Your task to perform on an android device: change notifications settings Image 0: 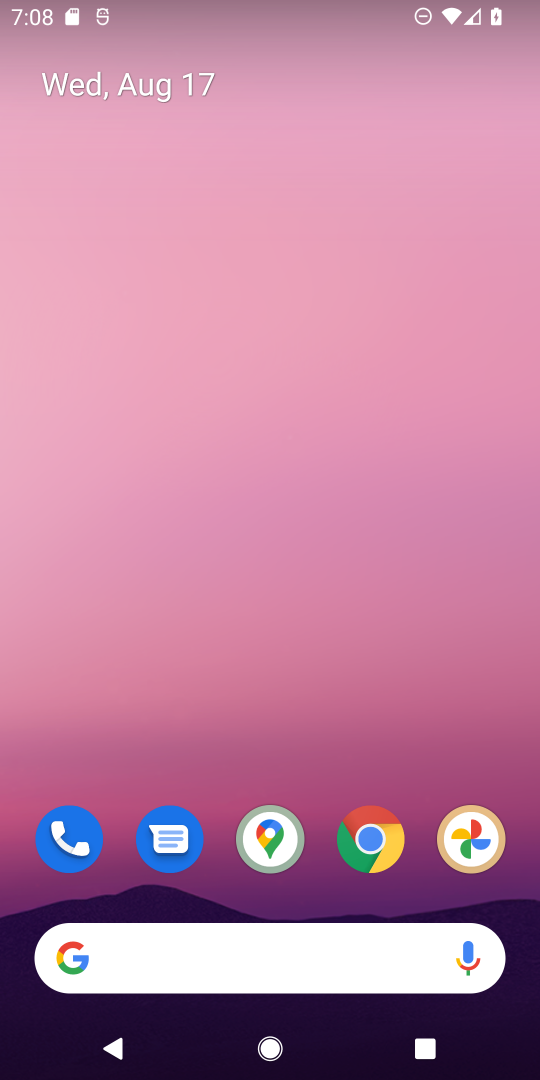
Step 0: drag from (288, 892) to (287, 14)
Your task to perform on an android device: change notifications settings Image 1: 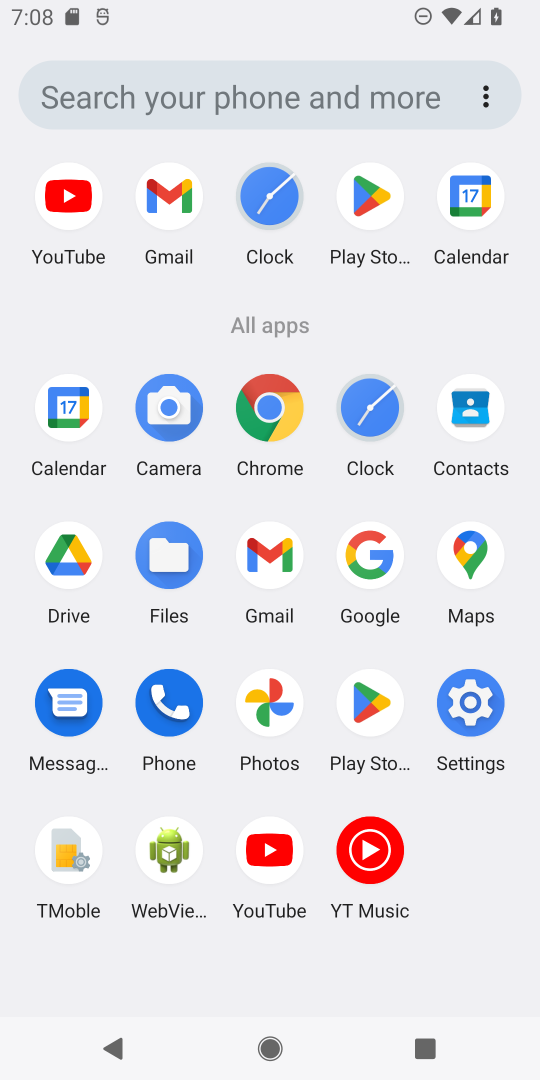
Step 1: click (480, 713)
Your task to perform on an android device: change notifications settings Image 2: 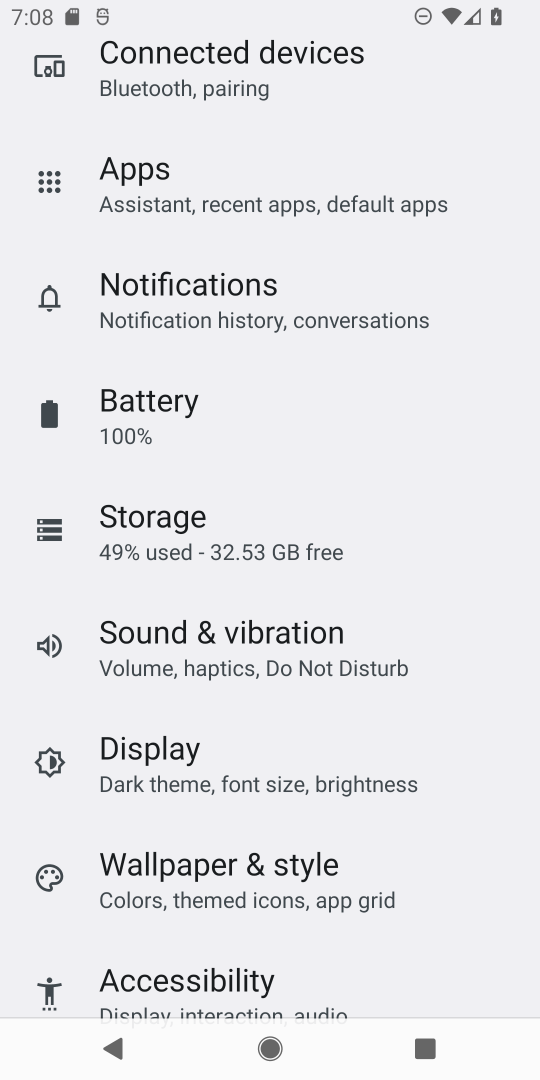
Step 2: click (212, 279)
Your task to perform on an android device: change notifications settings Image 3: 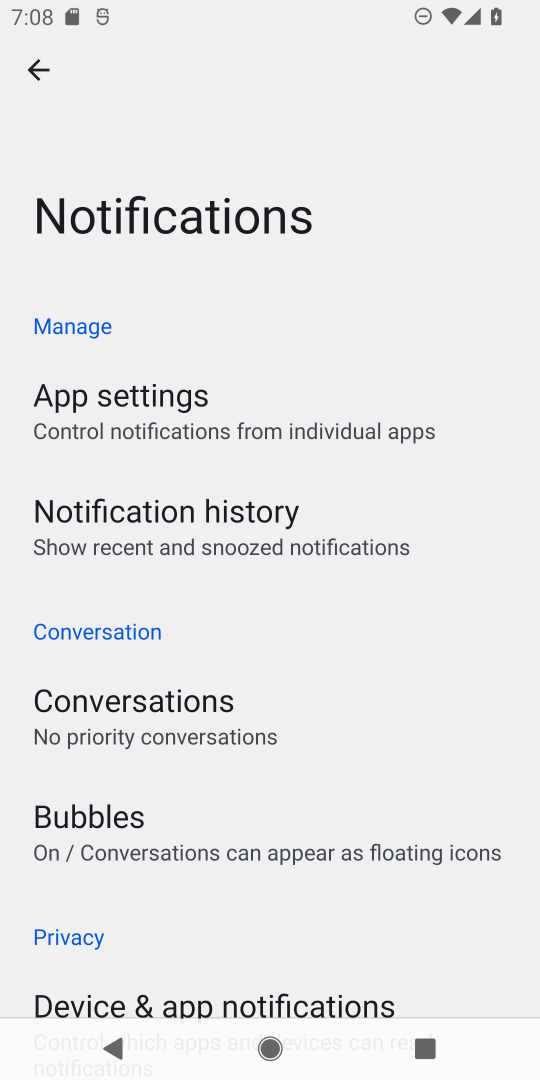
Step 3: task complete